Your task to perform on an android device: turn on notifications settings in the gmail app Image 0: 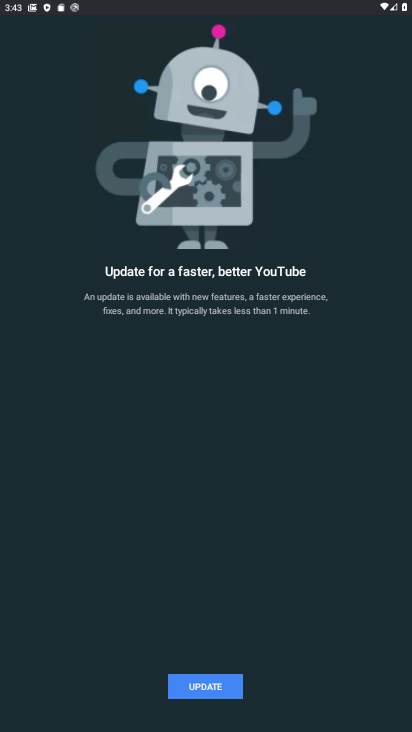
Step 0: drag from (249, 20) to (266, 498)
Your task to perform on an android device: turn on notifications settings in the gmail app Image 1: 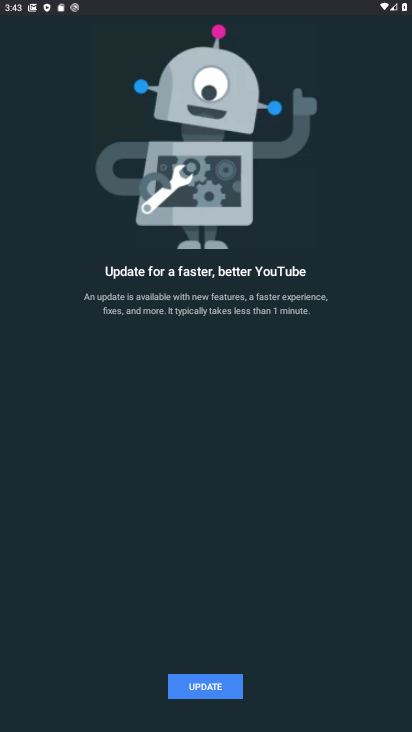
Step 1: drag from (297, 9) to (309, 537)
Your task to perform on an android device: turn on notifications settings in the gmail app Image 2: 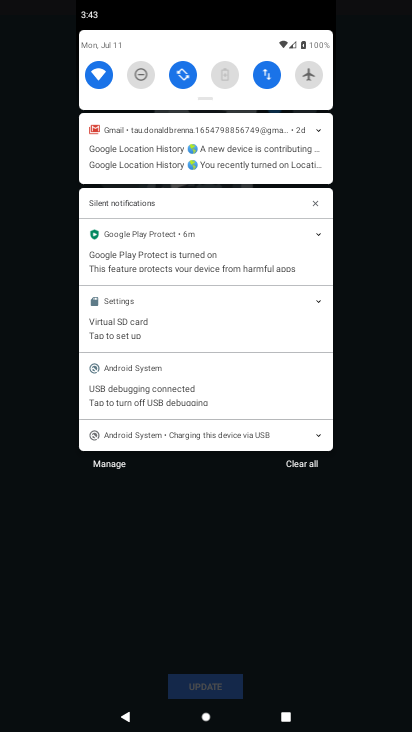
Step 2: drag from (213, 41) to (227, 598)
Your task to perform on an android device: turn on notifications settings in the gmail app Image 3: 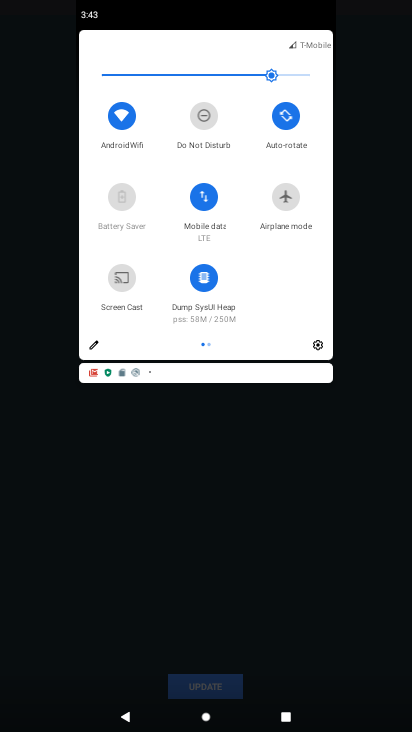
Step 3: click (320, 340)
Your task to perform on an android device: turn on notifications settings in the gmail app Image 4: 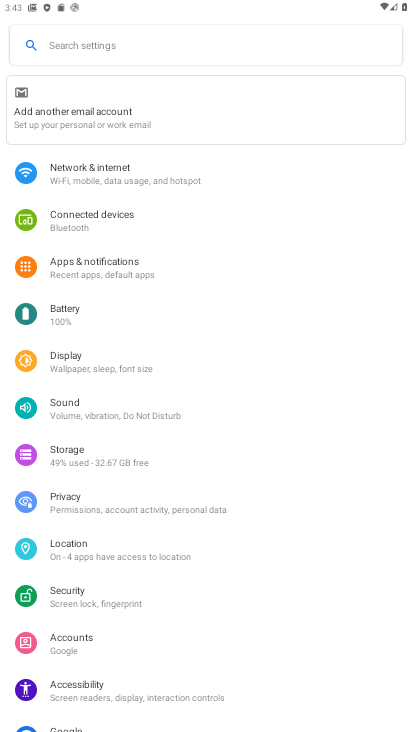
Step 4: click (144, 269)
Your task to perform on an android device: turn on notifications settings in the gmail app Image 5: 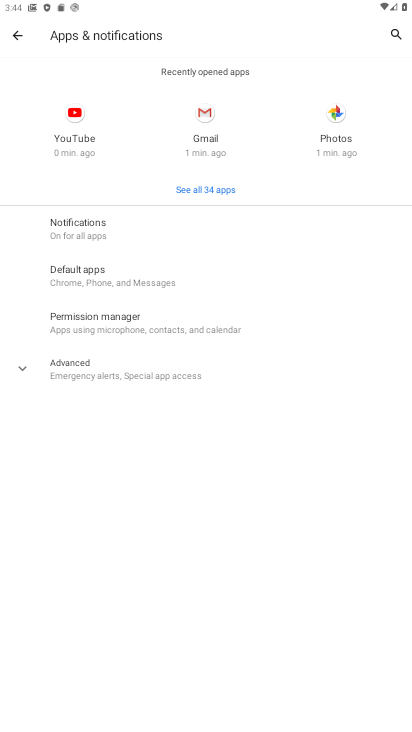
Step 5: click (207, 114)
Your task to perform on an android device: turn on notifications settings in the gmail app Image 6: 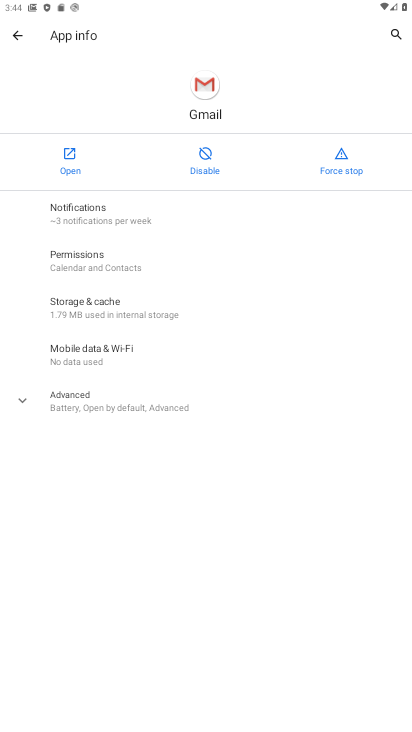
Step 6: click (116, 218)
Your task to perform on an android device: turn on notifications settings in the gmail app Image 7: 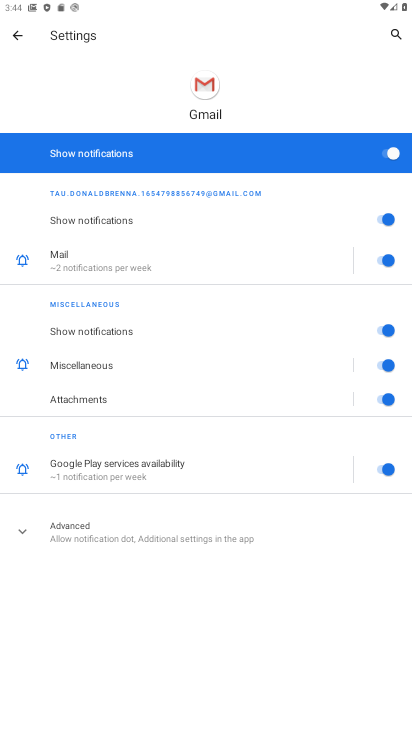
Step 7: task complete